Your task to perform on an android device: turn notification dots on Image 0: 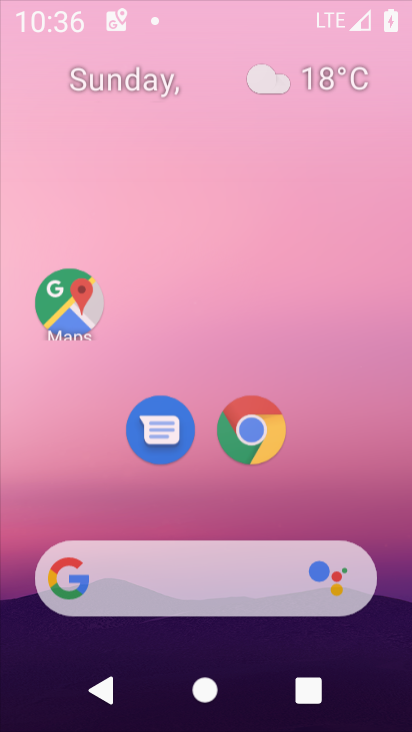
Step 0: press home button
Your task to perform on an android device: turn notification dots on Image 1: 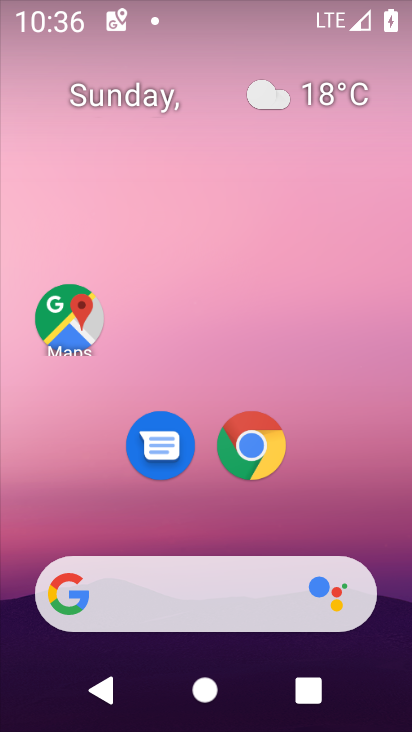
Step 1: drag from (208, 494) to (219, 1)
Your task to perform on an android device: turn notification dots on Image 2: 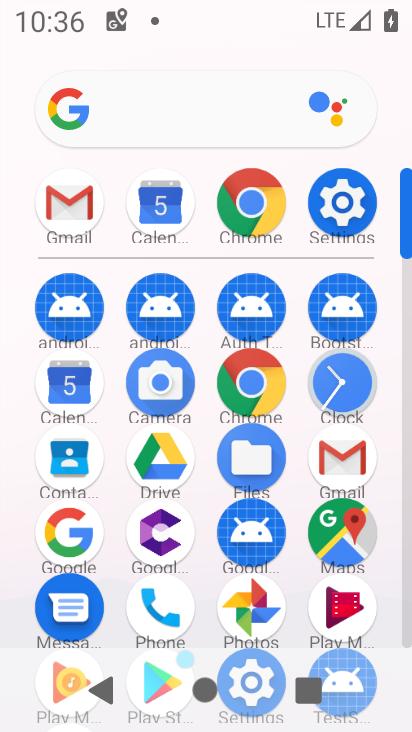
Step 2: click (341, 195)
Your task to perform on an android device: turn notification dots on Image 3: 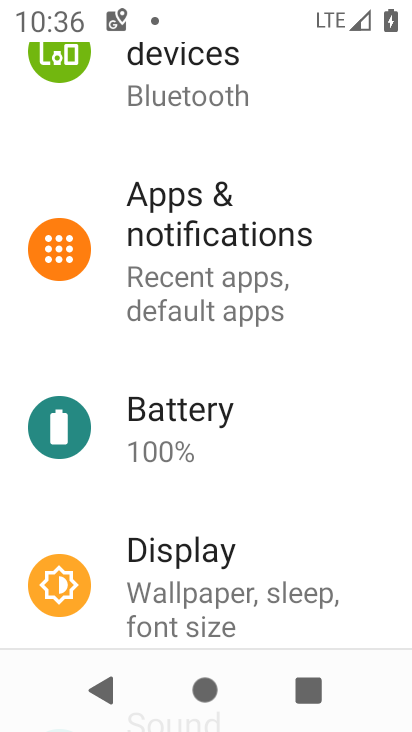
Step 3: click (302, 253)
Your task to perform on an android device: turn notification dots on Image 4: 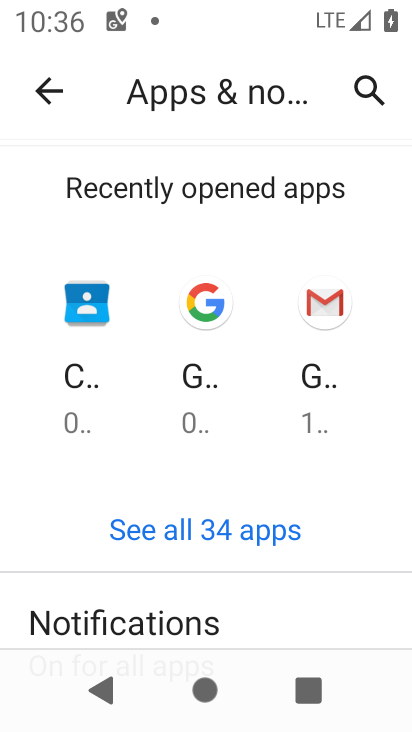
Step 4: click (248, 618)
Your task to perform on an android device: turn notification dots on Image 5: 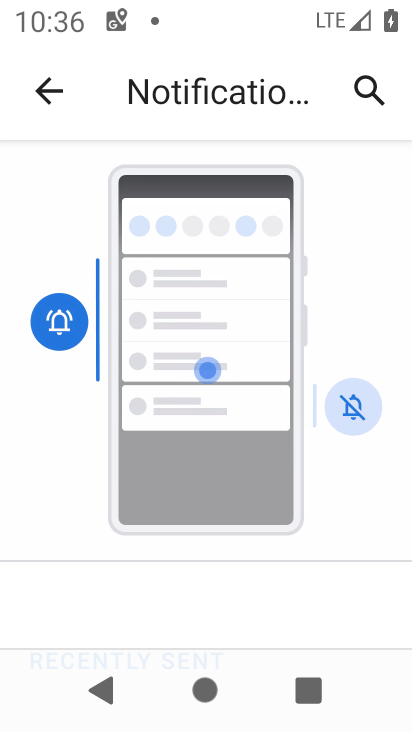
Step 5: drag from (248, 614) to (258, 120)
Your task to perform on an android device: turn notification dots on Image 6: 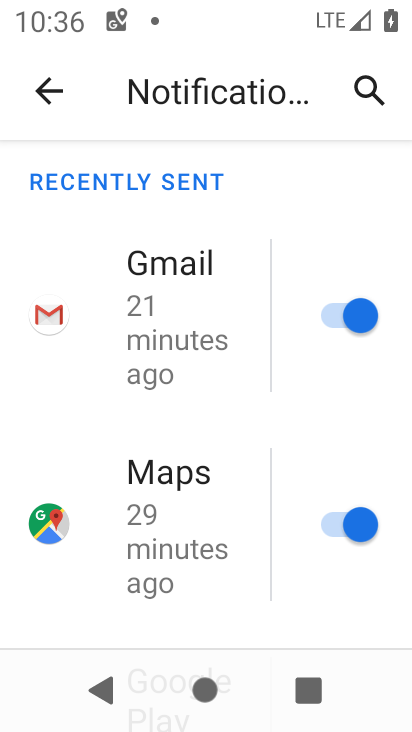
Step 6: drag from (235, 607) to (301, 53)
Your task to perform on an android device: turn notification dots on Image 7: 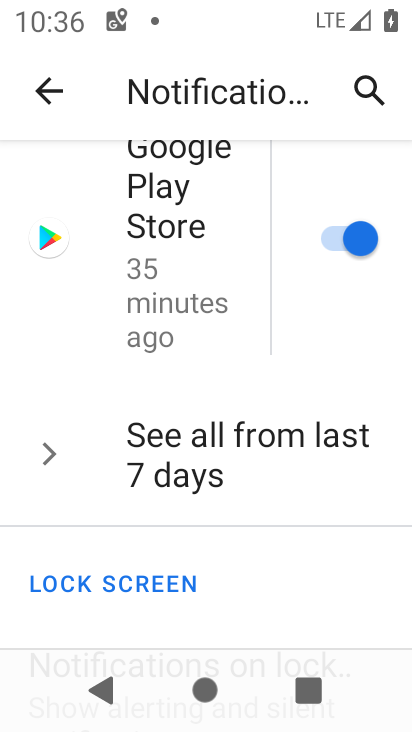
Step 7: drag from (242, 576) to (271, 138)
Your task to perform on an android device: turn notification dots on Image 8: 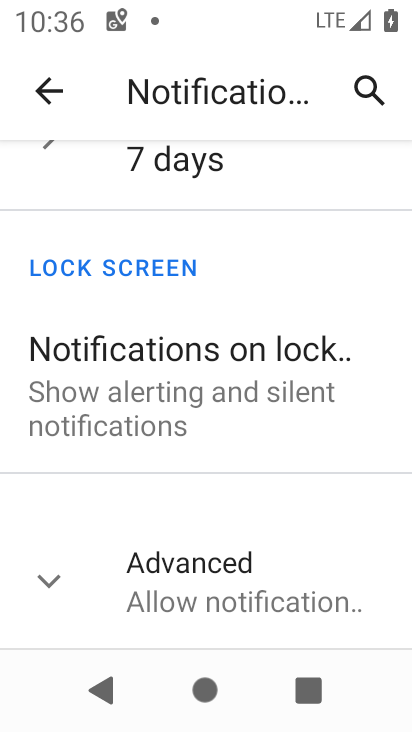
Step 8: click (47, 576)
Your task to perform on an android device: turn notification dots on Image 9: 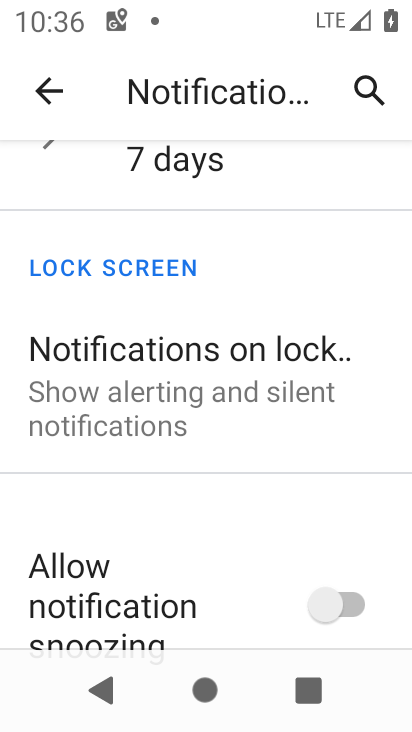
Step 9: task complete